Your task to perform on an android device: turn on showing notifications on the lock screen Image 0: 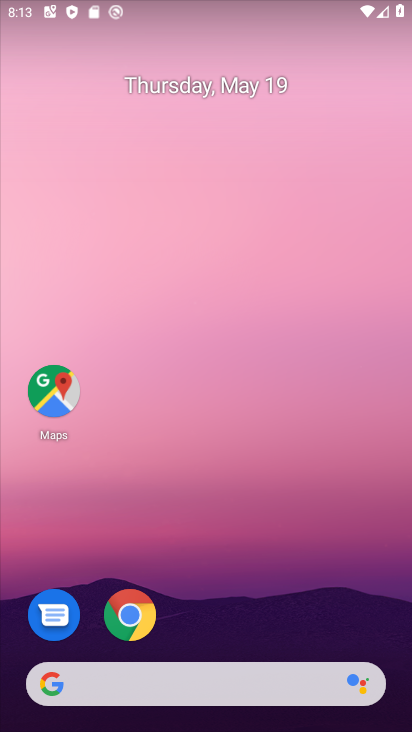
Step 0: drag from (262, 594) to (264, 130)
Your task to perform on an android device: turn on showing notifications on the lock screen Image 1: 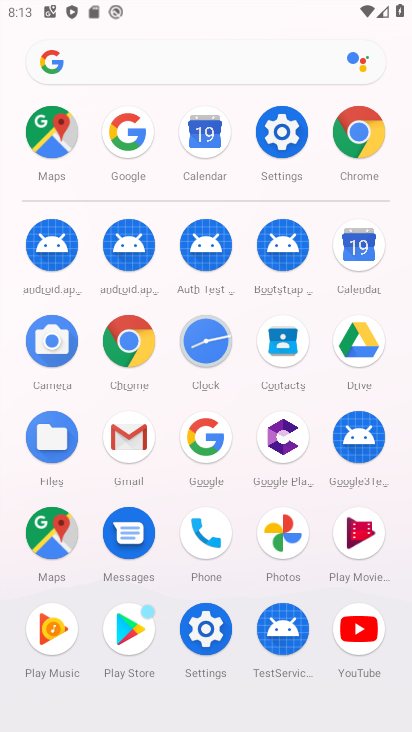
Step 1: click (287, 141)
Your task to perform on an android device: turn on showing notifications on the lock screen Image 2: 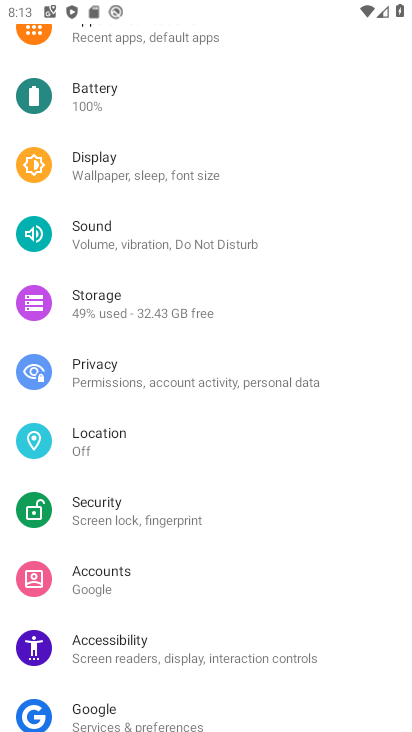
Step 2: drag from (141, 125) to (185, 391)
Your task to perform on an android device: turn on showing notifications on the lock screen Image 3: 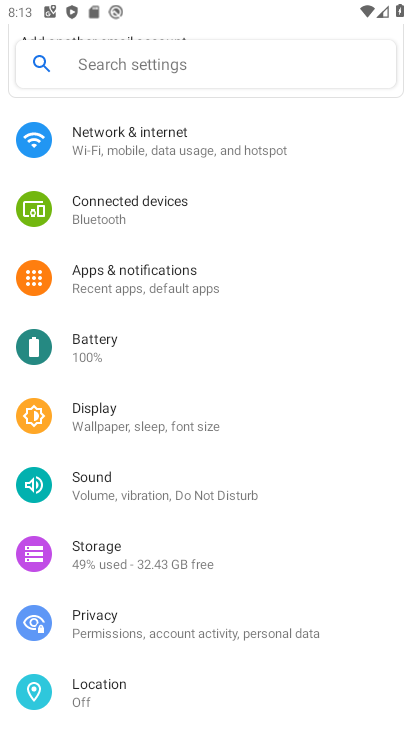
Step 3: click (128, 294)
Your task to perform on an android device: turn on showing notifications on the lock screen Image 4: 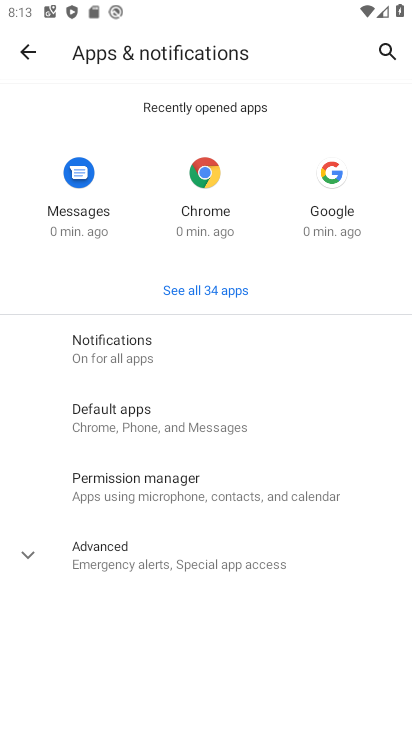
Step 4: click (112, 352)
Your task to perform on an android device: turn on showing notifications on the lock screen Image 5: 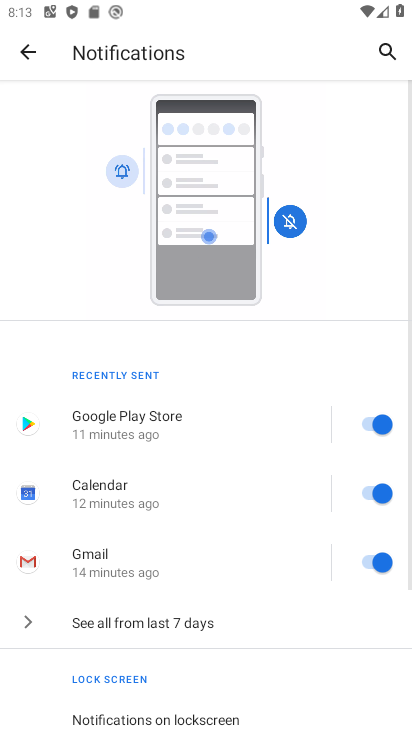
Step 5: drag from (224, 711) to (215, 239)
Your task to perform on an android device: turn on showing notifications on the lock screen Image 6: 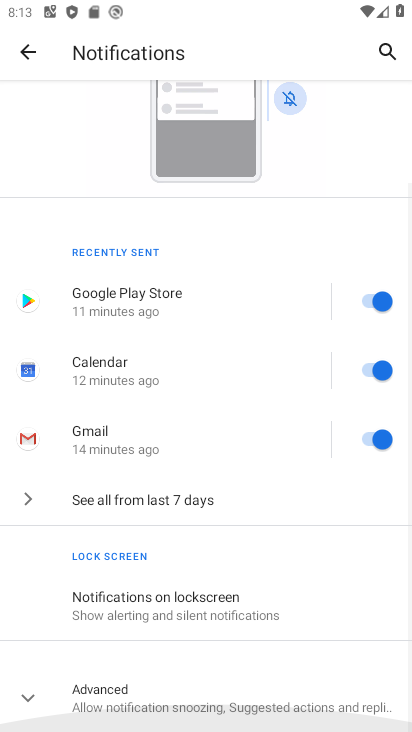
Step 6: click (184, 593)
Your task to perform on an android device: turn on showing notifications on the lock screen Image 7: 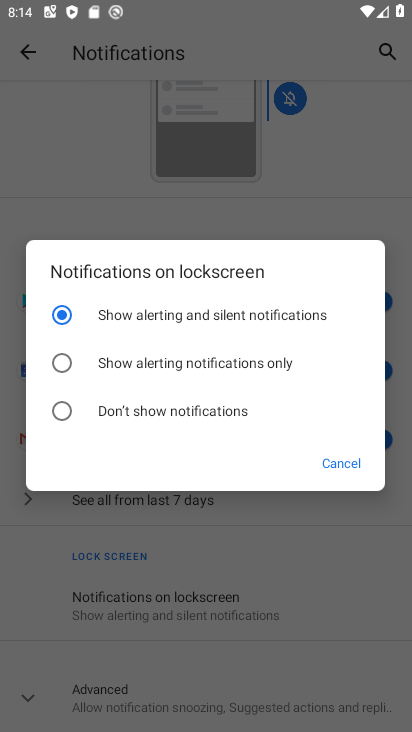
Step 7: task complete